Your task to perform on an android device: See recent photos Image 0: 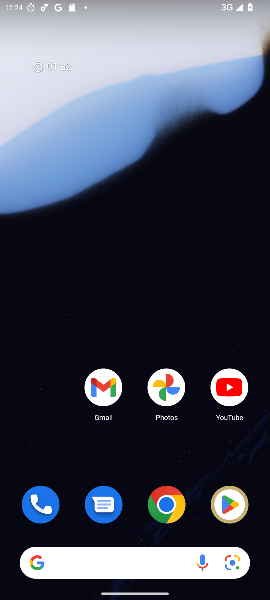
Step 0: press home button
Your task to perform on an android device: See recent photos Image 1: 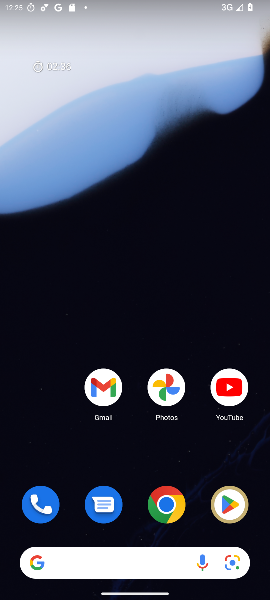
Step 1: click (157, 391)
Your task to perform on an android device: See recent photos Image 2: 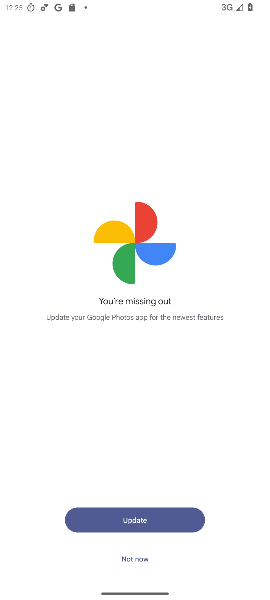
Step 2: click (112, 515)
Your task to perform on an android device: See recent photos Image 3: 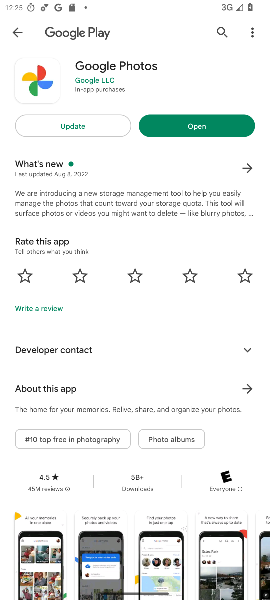
Step 3: click (46, 123)
Your task to perform on an android device: See recent photos Image 4: 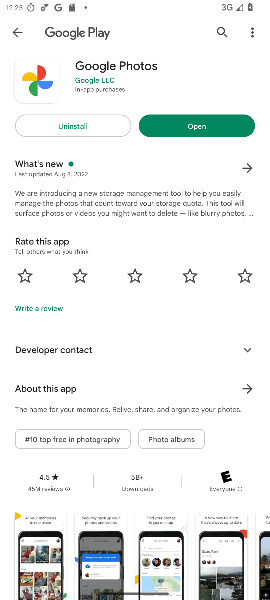
Step 4: click (171, 129)
Your task to perform on an android device: See recent photos Image 5: 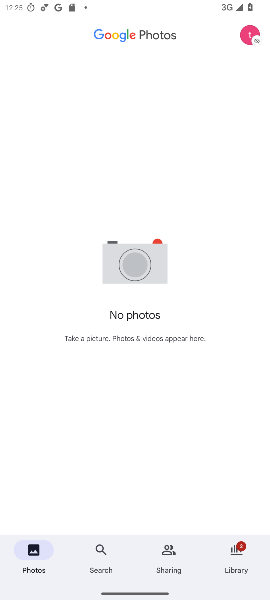
Step 5: task complete